Your task to perform on an android device: turn off sleep mode Image 0: 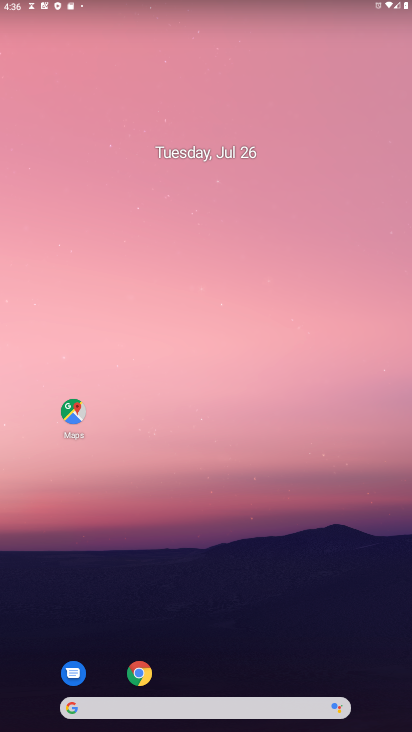
Step 0: drag from (199, 709) to (208, 31)
Your task to perform on an android device: turn off sleep mode Image 1: 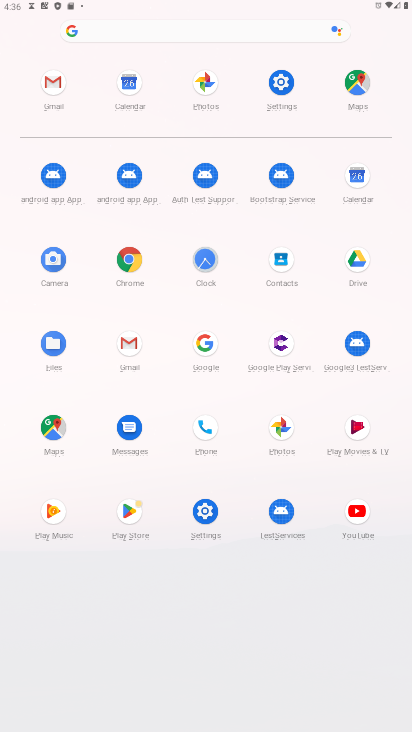
Step 1: click (278, 80)
Your task to perform on an android device: turn off sleep mode Image 2: 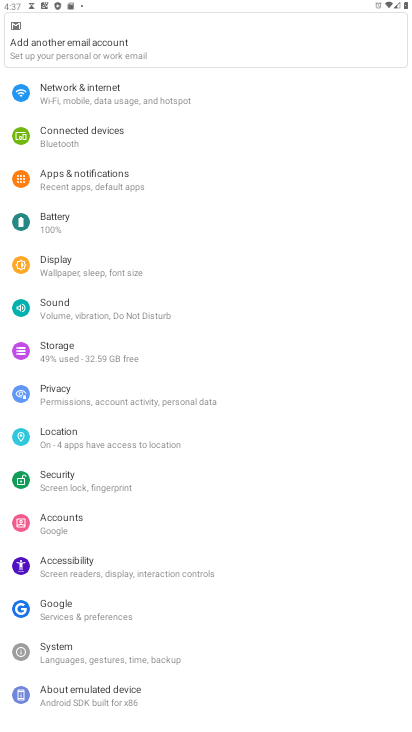
Step 2: click (89, 263)
Your task to perform on an android device: turn off sleep mode Image 3: 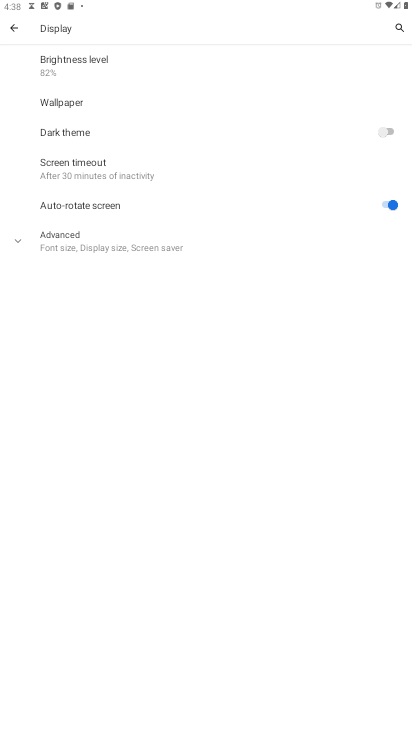
Step 3: click (80, 252)
Your task to perform on an android device: turn off sleep mode Image 4: 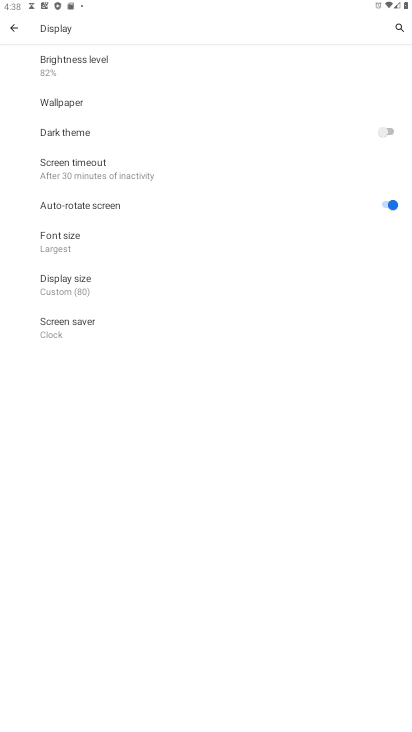
Step 4: task complete